Your task to perform on an android device: allow cookies in the chrome app Image 0: 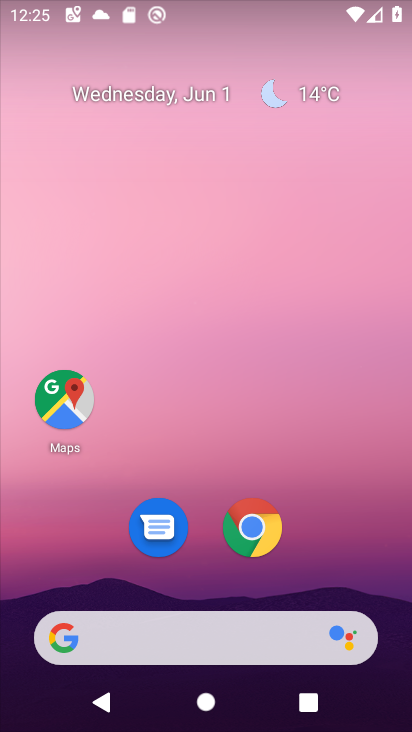
Step 0: click (251, 531)
Your task to perform on an android device: allow cookies in the chrome app Image 1: 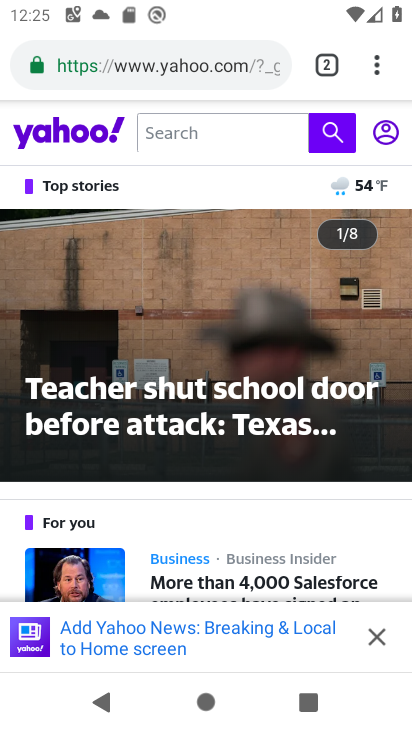
Step 1: click (375, 70)
Your task to perform on an android device: allow cookies in the chrome app Image 2: 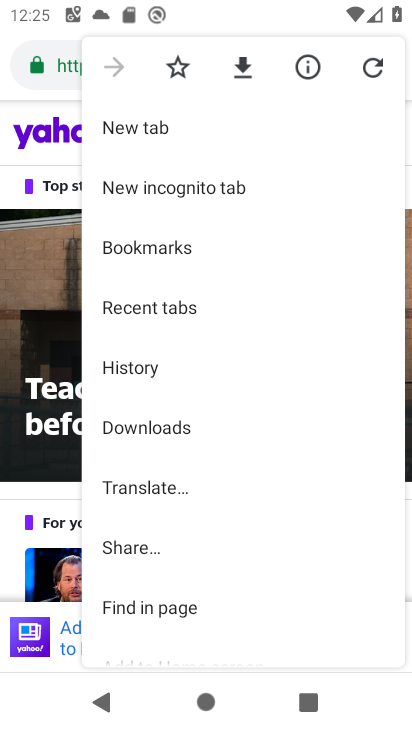
Step 2: drag from (239, 491) to (225, 166)
Your task to perform on an android device: allow cookies in the chrome app Image 3: 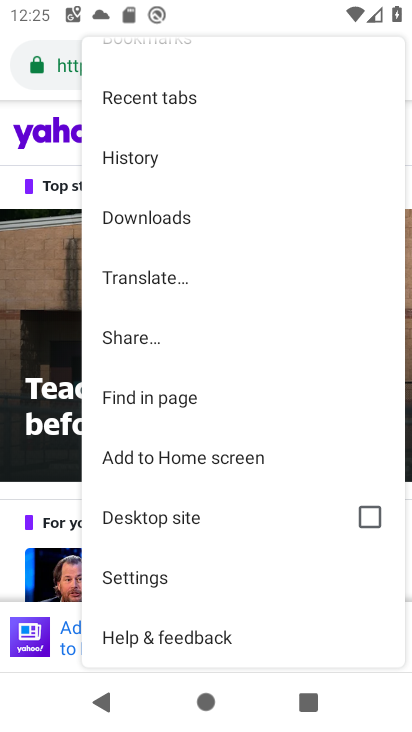
Step 3: click (134, 578)
Your task to perform on an android device: allow cookies in the chrome app Image 4: 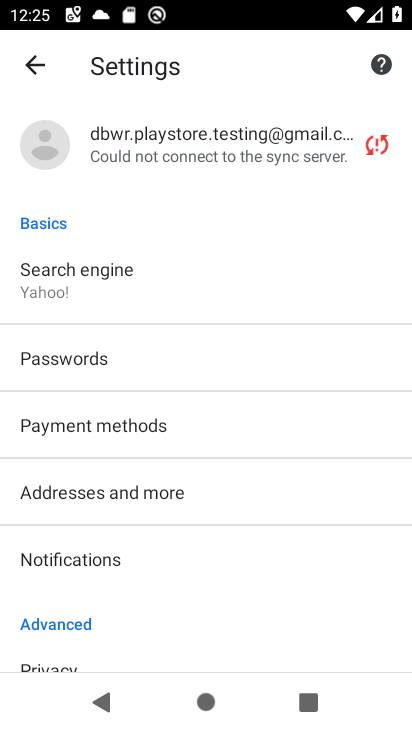
Step 4: drag from (200, 536) to (186, 188)
Your task to perform on an android device: allow cookies in the chrome app Image 5: 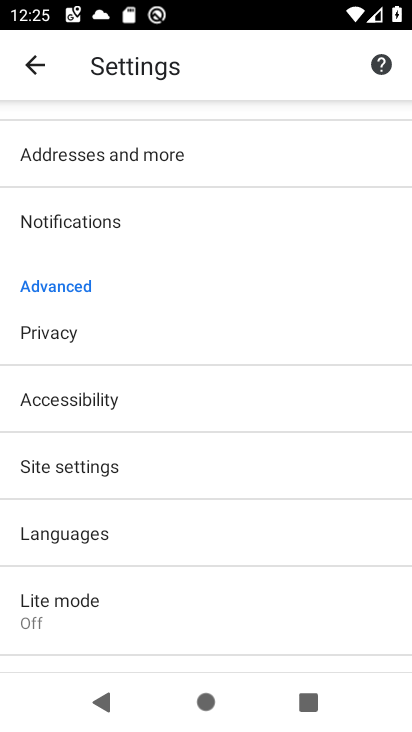
Step 5: click (83, 466)
Your task to perform on an android device: allow cookies in the chrome app Image 6: 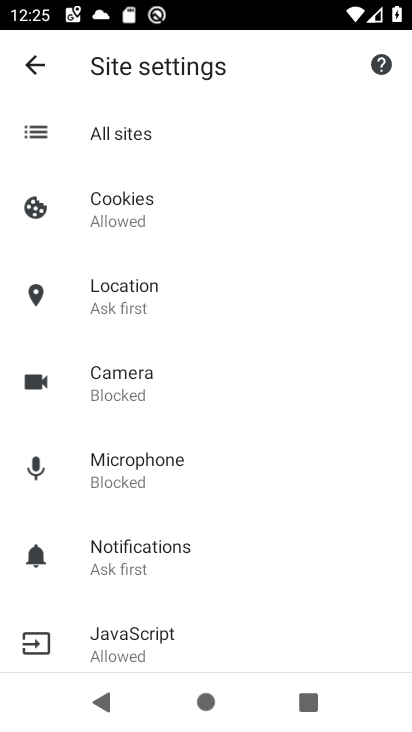
Step 6: click (121, 213)
Your task to perform on an android device: allow cookies in the chrome app Image 7: 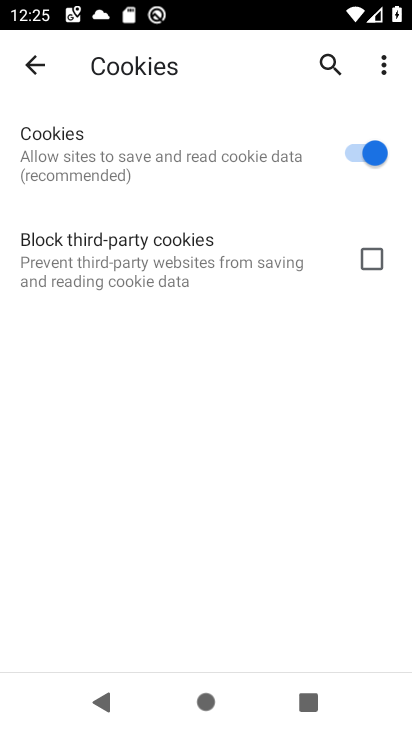
Step 7: task complete